Your task to perform on an android device: Go to Google Image 0: 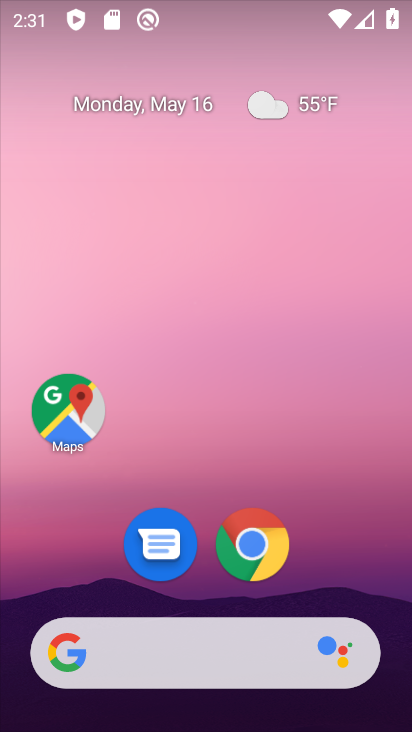
Step 0: drag from (400, 403) to (394, 205)
Your task to perform on an android device: Go to Google Image 1: 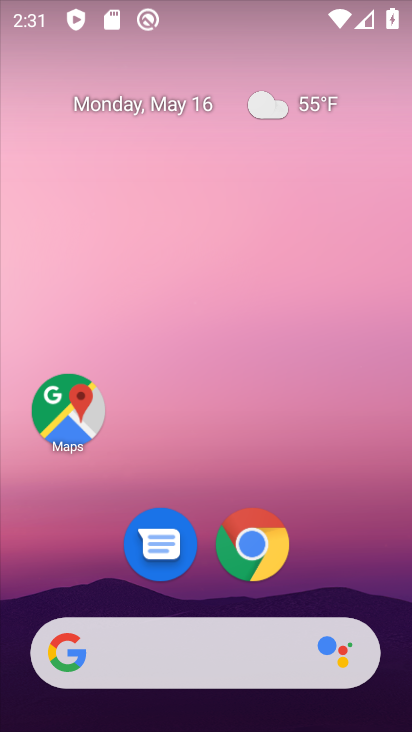
Step 1: drag from (313, 505) to (311, 164)
Your task to perform on an android device: Go to Google Image 2: 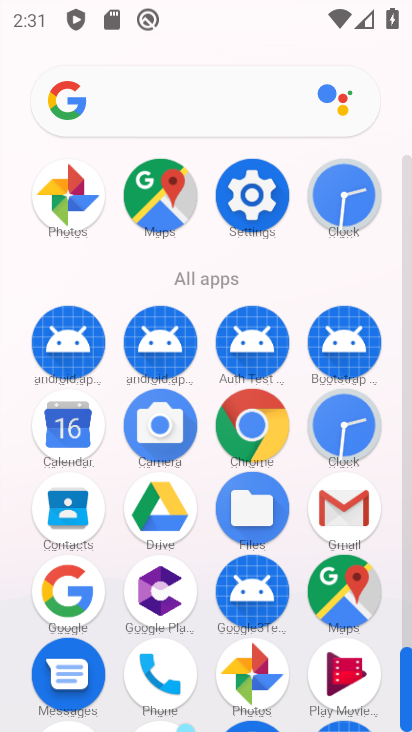
Step 2: drag from (318, 578) to (386, 170)
Your task to perform on an android device: Go to Google Image 3: 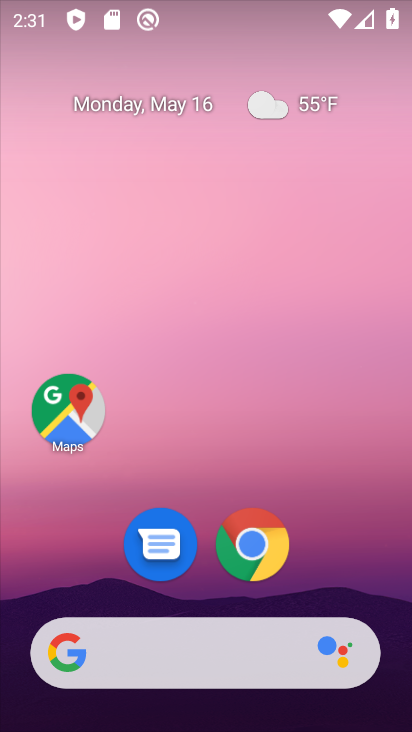
Step 3: drag from (355, 578) to (374, 126)
Your task to perform on an android device: Go to Google Image 4: 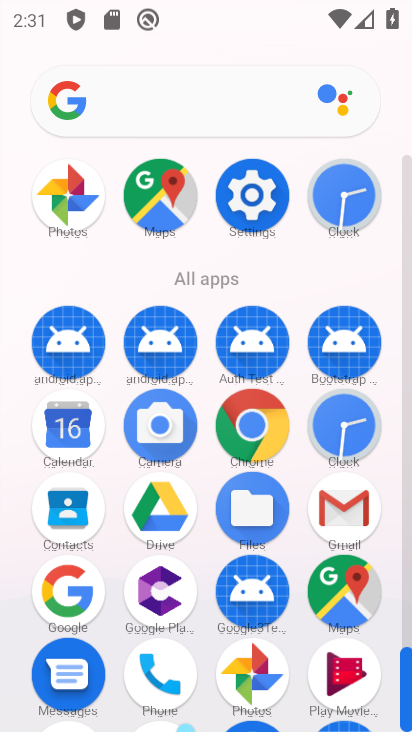
Step 4: click (65, 588)
Your task to perform on an android device: Go to Google Image 5: 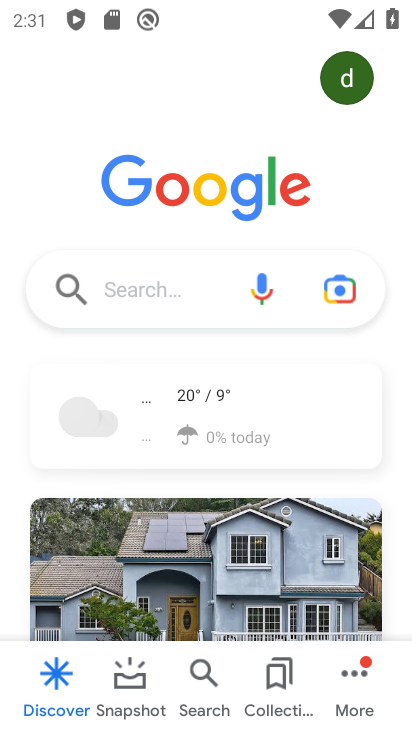
Step 5: task complete